Your task to perform on an android device: set default search engine in the chrome app Image 0: 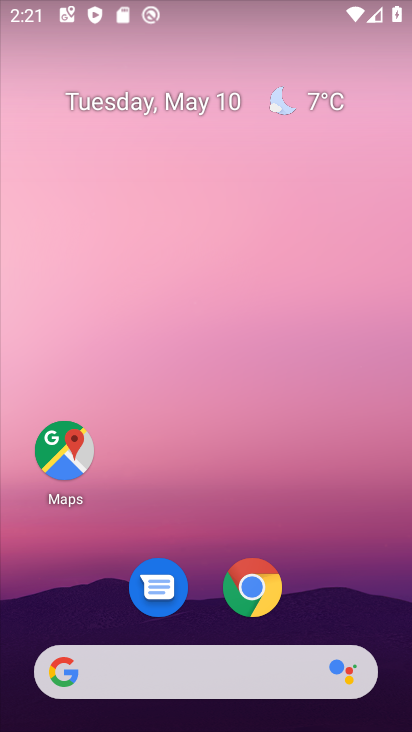
Step 0: click (329, 563)
Your task to perform on an android device: set default search engine in the chrome app Image 1: 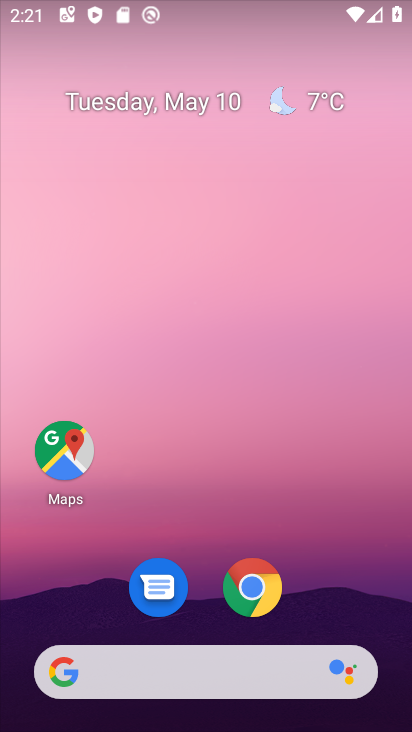
Step 1: click (259, 574)
Your task to perform on an android device: set default search engine in the chrome app Image 2: 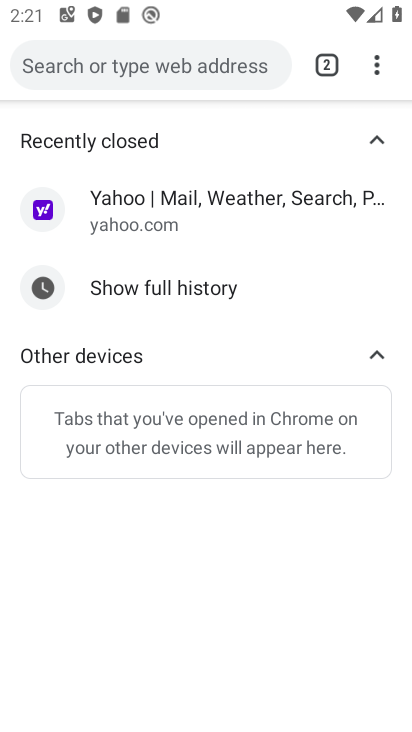
Step 2: click (344, 59)
Your task to perform on an android device: set default search engine in the chrome app Image 3: 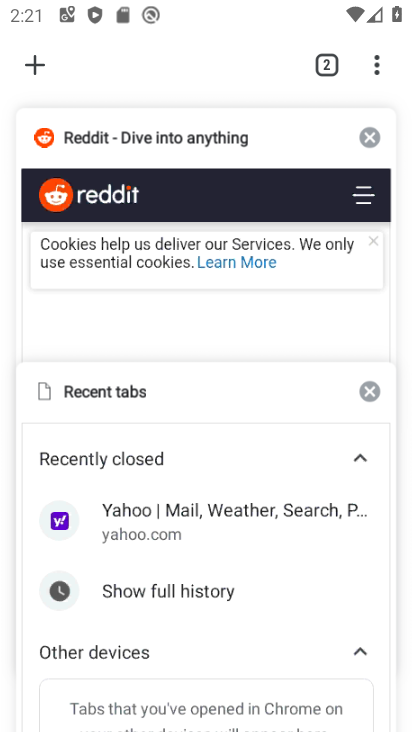
Step 3: click (368, 137)
Your task to perform on an android device: set default search engine in the chrome app Image 4: 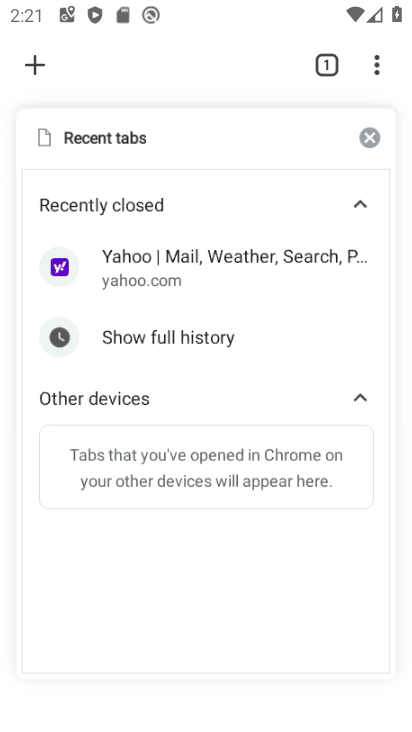
Step 4: click (368, 137)
Your task to perform on an android device: set default search engine in the chrome app Image 5: 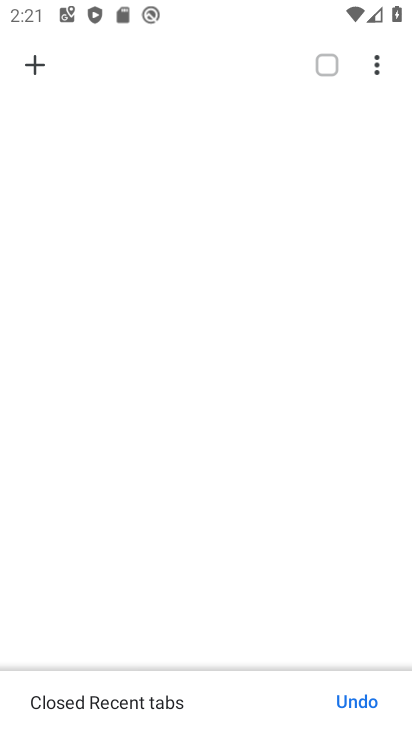
Step 5: click (44, 72)
Your task to perform on an android device: set default search engine in the chrome app Image 6: 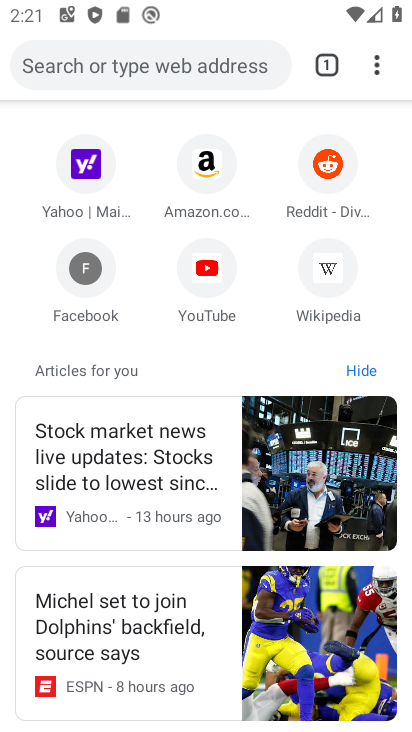
Step 6: click (373, 69)
Your task to perform on an android device: set default search engine in the chrome app Image 7: 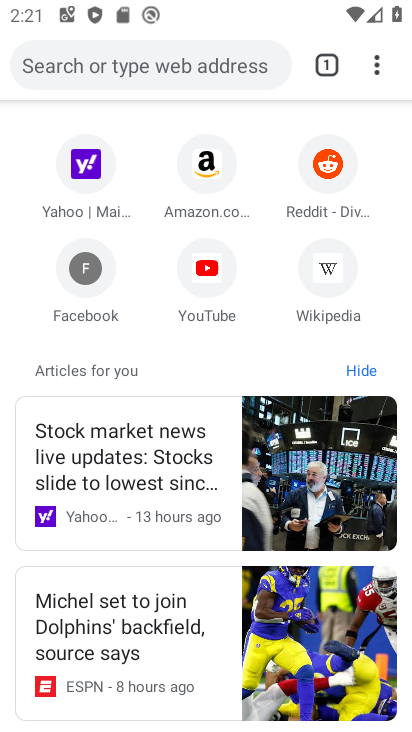
Step 7: click (368, 79)
Your task to perform on an android device: set default search engine in the chrome app Image 8: 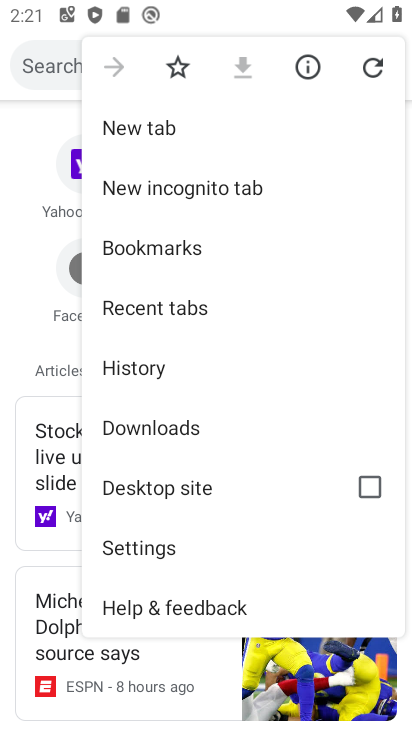
Step 8: click (131, 543)
Your task to perform on an android device: set default search engine in the chrome app Image 9: 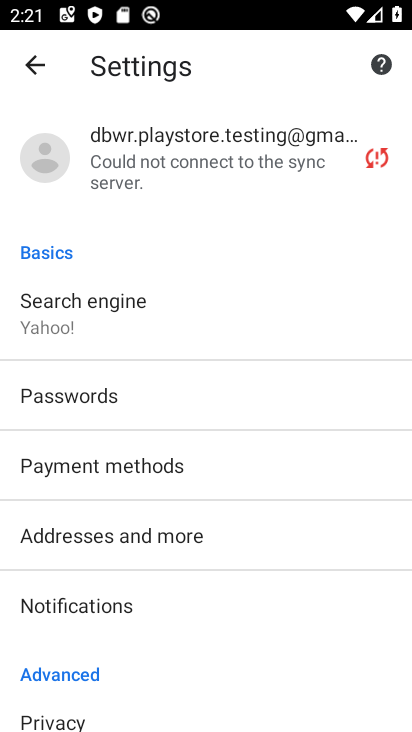
Step 9: click (99, 315)
Your task to perform on an android device: set default search engine in the chrome app Image 10: 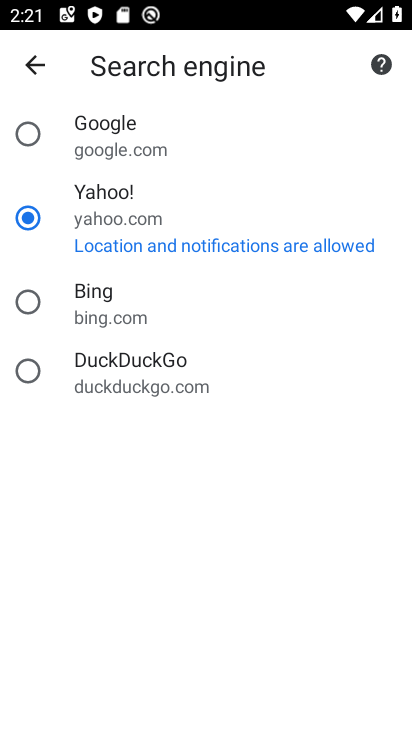
Step 10: click (86, 124)
Your task to perform on an android device: set default search engine in the chrome app Image 11: 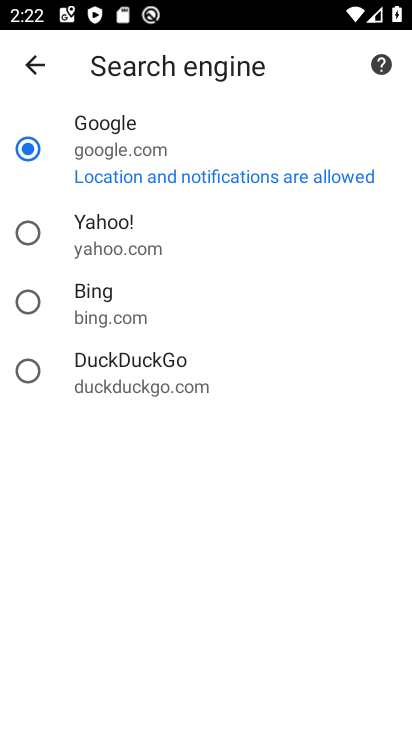
Step 11: task complete